Your task to perform on an android device: toggle priority inbox in the gmail app Image 0: 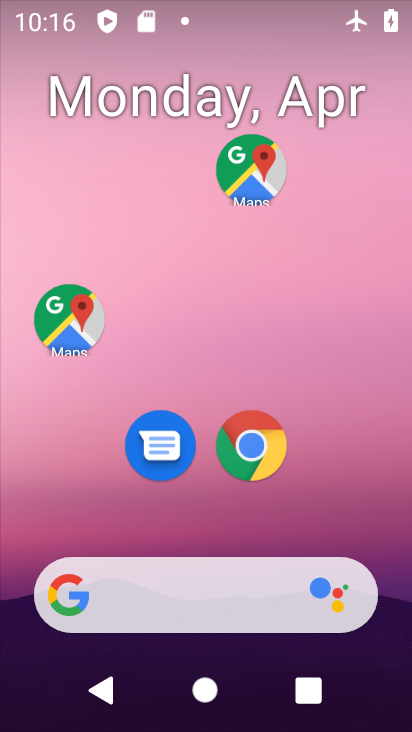
Step 0: drag from (200, 496) to (218, 37)
Your task to perform on an android device: toggle priority inbox in the gmail app Image 1: 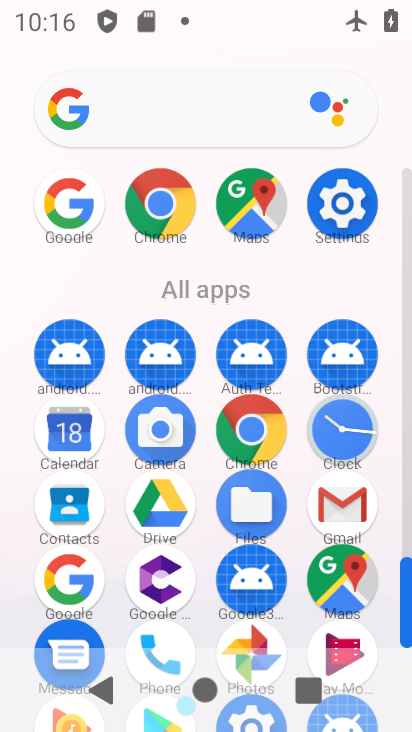
Step 1: click (340, 501)
Your task to perform on an android device: toggle priority inbox in the gmail app Image 2: 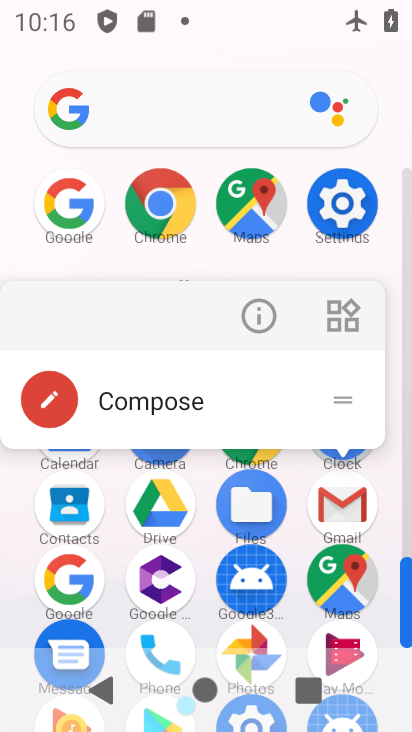
Step 2: click (343, 492)
Your task to perform on an android device: toggle priority inbox in the gmail app Image 3: 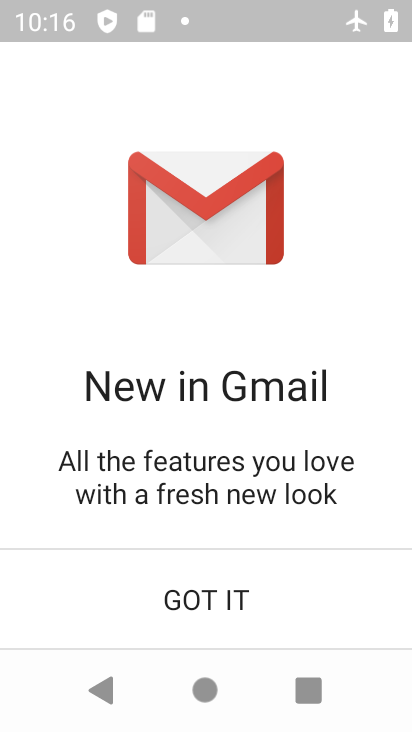
Step 3: click (259, 604)
Your task to perform on an android device: toggle priority inbox in the gmail app Image 4: 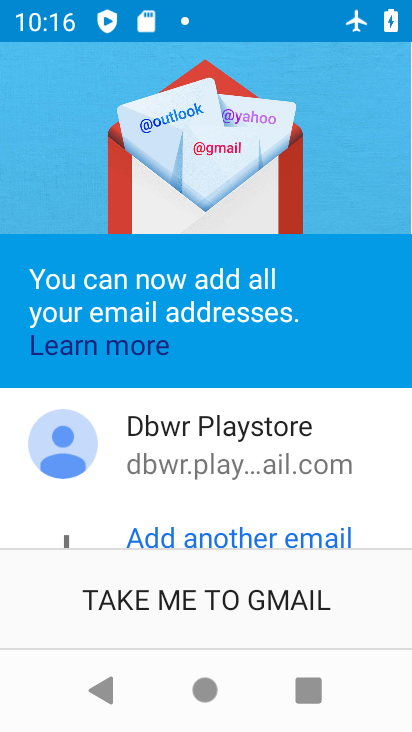
Step 4: click (286, 602)
Your task to perform on an android device: toggle priority inbox in the gmail app Image 5: 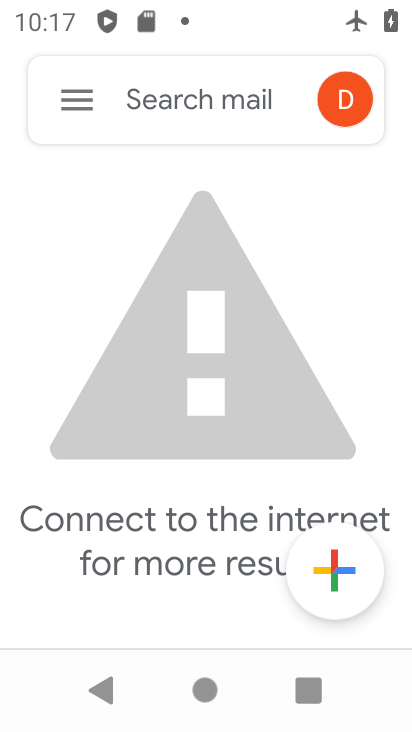
Step 5: drag from (198, 17) to (201, 651)
Your task to perform on an android device: toggle priority inbox in the gmail app Image 6: 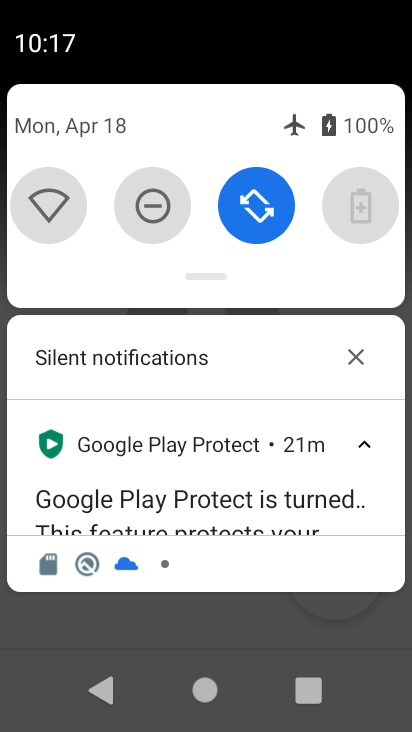
Step 6: drag from (171, 235) to (9, 219)
Your task to perform on an android device: toggle priority inbox in the gmail app Image 7: 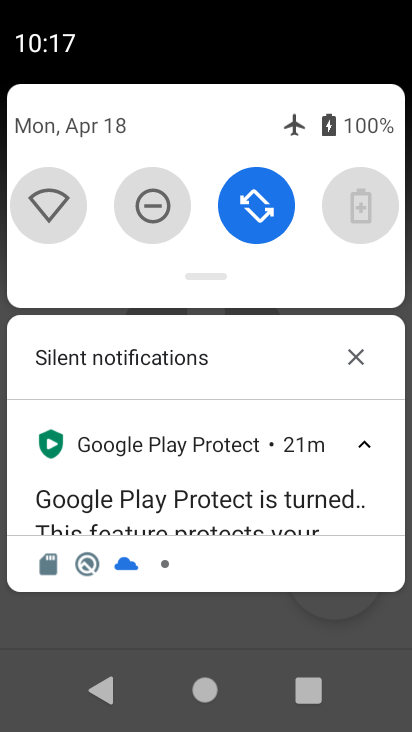
Step 7: drag from (276, 207) to (5, 176)
Your task to perform on an android device: toggle priority inbox in the gmail app Image 8: 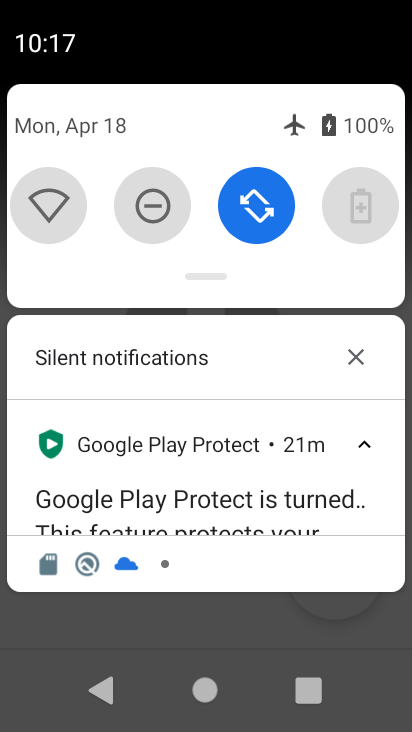
Step 8: drag from (187, 267) to (204, 620)
Your task to perform on an android device: toggle priority inbox in the gmail app Image 9: 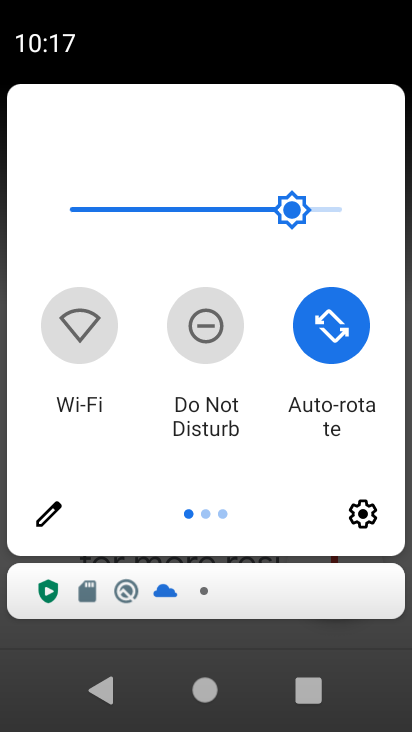
Step 9: drag from (154, 368) to (8, 354)
Your task to perform on an android device: toggle priority inbox in the gmail app Image 10: 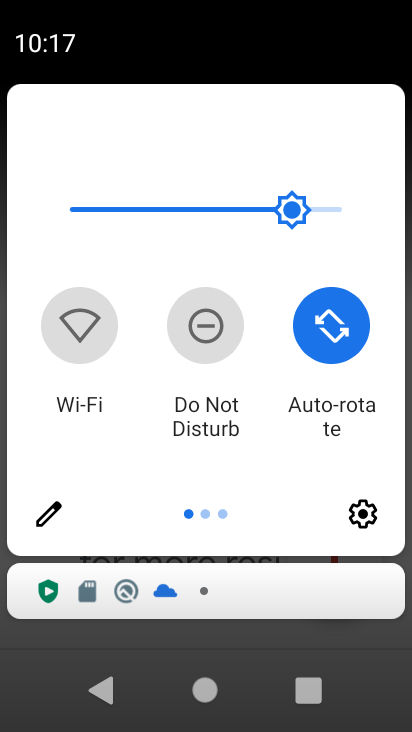
Step 10: drag from (275, 358) to (6, 364)
Your task to perform on an android device: toggle priority inbox in the gmail app Image 11: 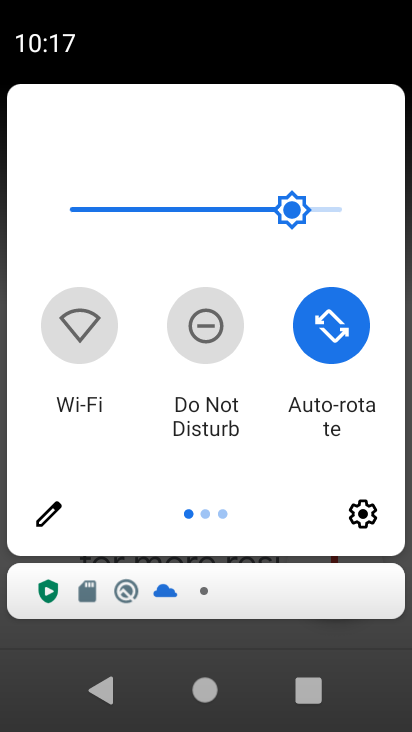
Step 11: drag from (212, 386) to (11, 357)
Your task to perform on an android device: toggle priority inbox in the gmail app Image 12: 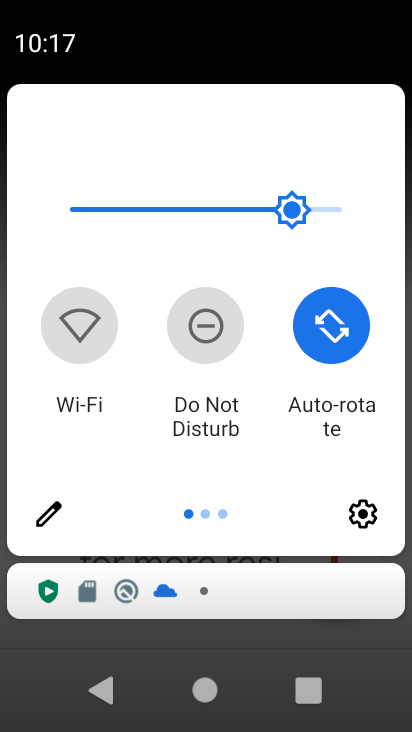
Step 12: drag from (290, 395) to (3, 364)
Your task to perform on an android device: toggle priority inbox in the gmail app Image 13: 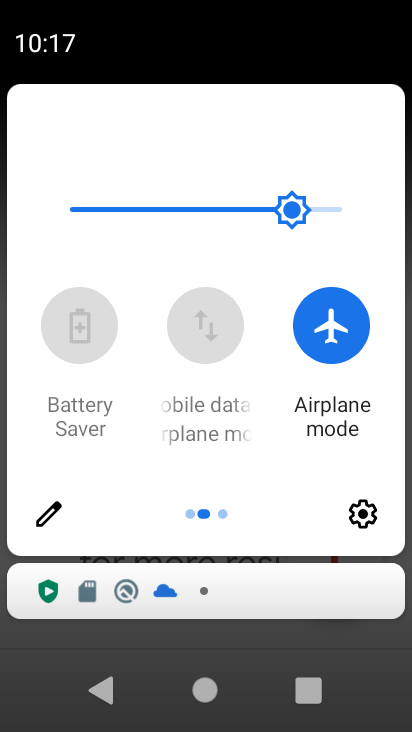
Step 13: drag from (300, 334) to (4, 296)
Your task to perform on an android device: toggle priority inbox in the gmail app Image 14: 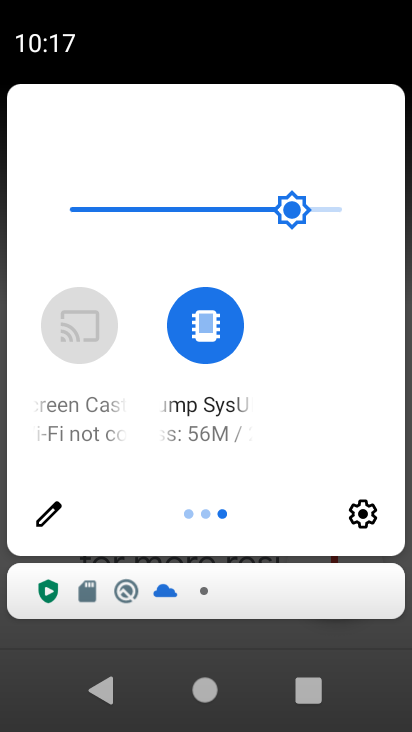
Step 14: click (60, 327)
Your task to perform on an android device: toggle priority inbox in the gmail app Image 15: 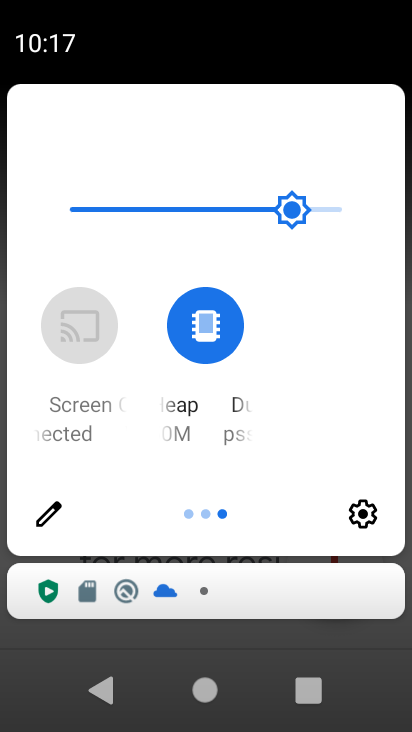
Step 15: drag from (35, 350) to (410, 335)
Your task to perform on an android device: toggle priority inbox in the gmail app Image 16: 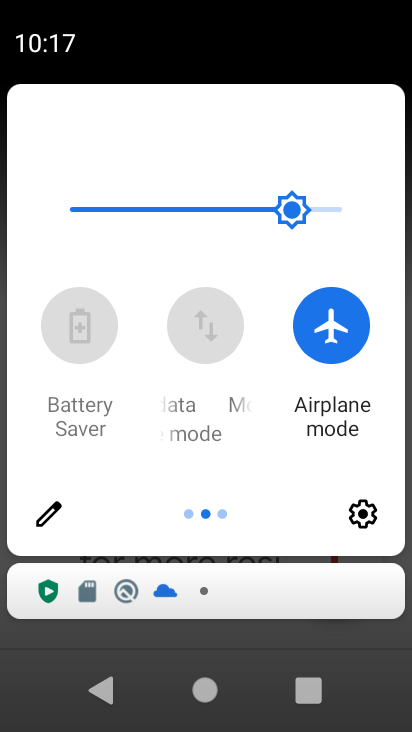
Step 16: click (323, 317)
Your task to perform on an android device: toggle priority inbox in the gmail app Image 17: 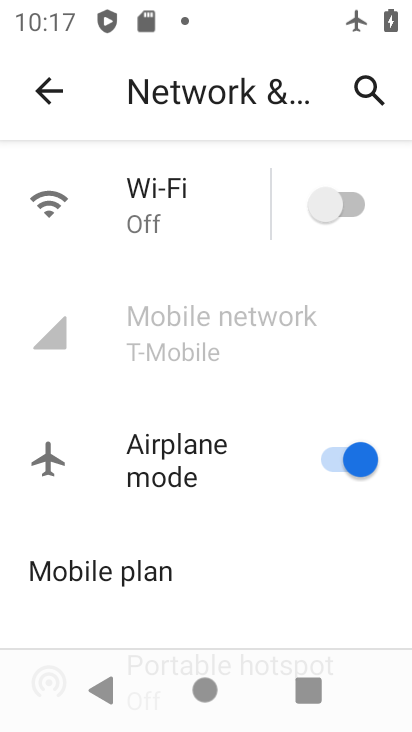
Step 17: click (331, 461)
Your task to perform on an android device: toggle priority inbox in the gmail app Image 18: 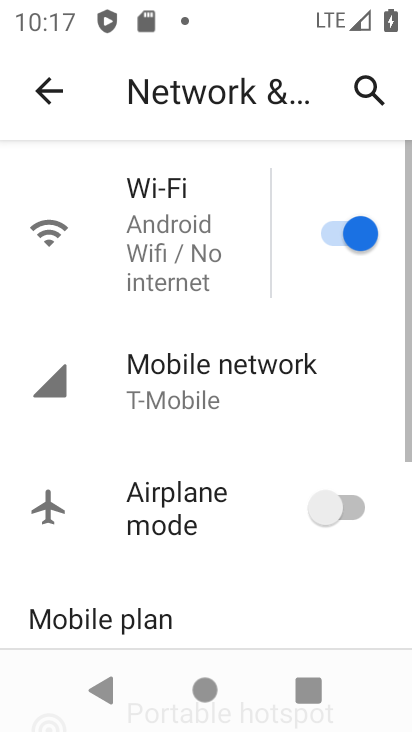
Step 18: click (115, 682)
Your task to perform on an android device: toggle priority inbox in the gmail app Image 19: 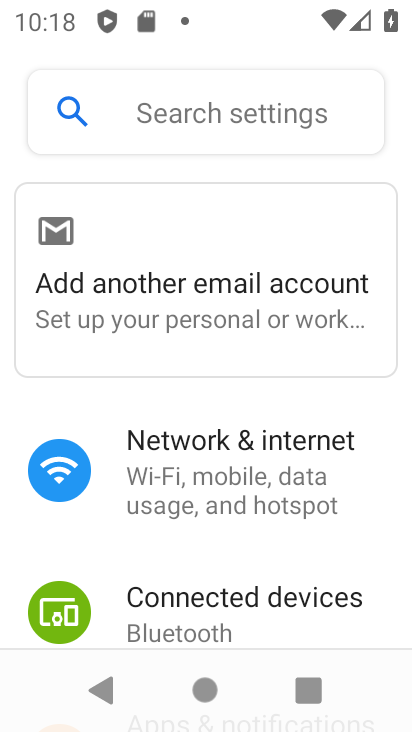
Step 19: press home button
Your task to perform on an android device: toggle priority inbox in the gmail app Image 20: 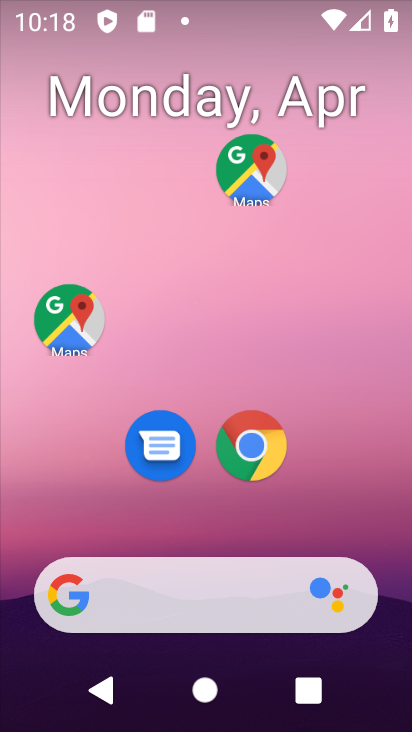
Step 20: drag from (180, 525) to (129, 9)
Your task to perform on an android device: toggle priority inbox in the gmail app Image 21: 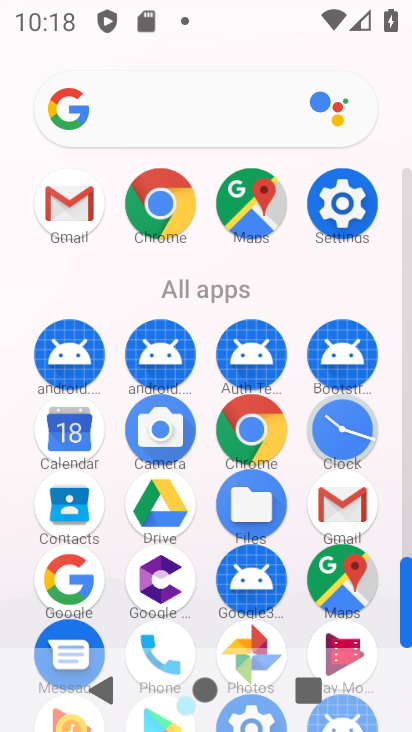
Step 21: click (65, 209)
Your task to perform on an android device: toggle priority inbox in the gmail app Image 22: 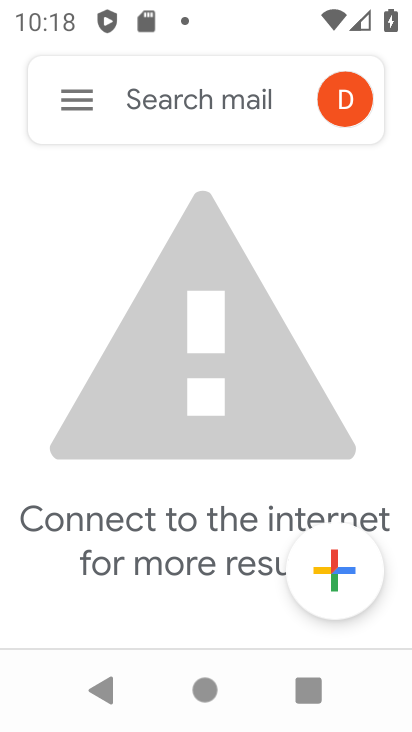
Step 22: click (73, 116)
Your task to perform on an android device: toggle priority inbox in the gmail app Image 23: 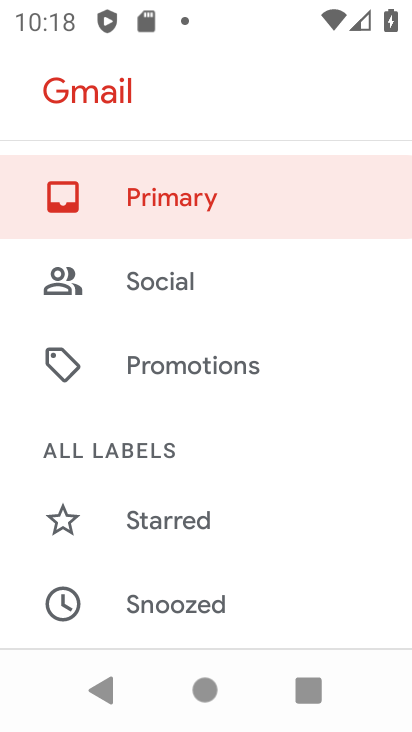
Step 23: drag from (161, 548) to (158, 134)
Your task to perform on an android device: toggle priority inbox in the gmail app Image 24: 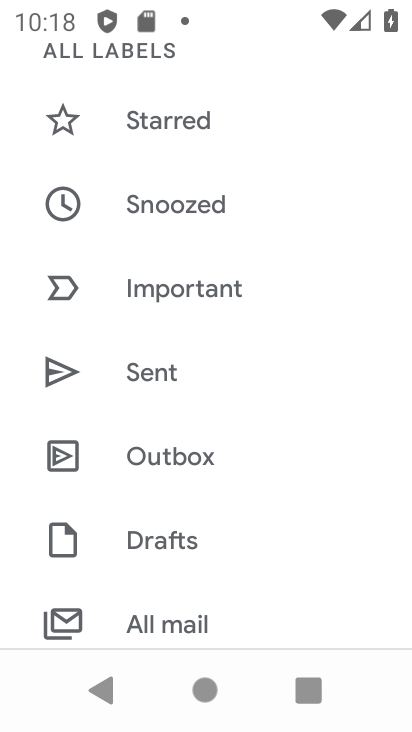
Step 24: drag from (156, 586) to (161, 88)
Your task to perform on an android device: toggle priority inbox in the gmail app Image 25: 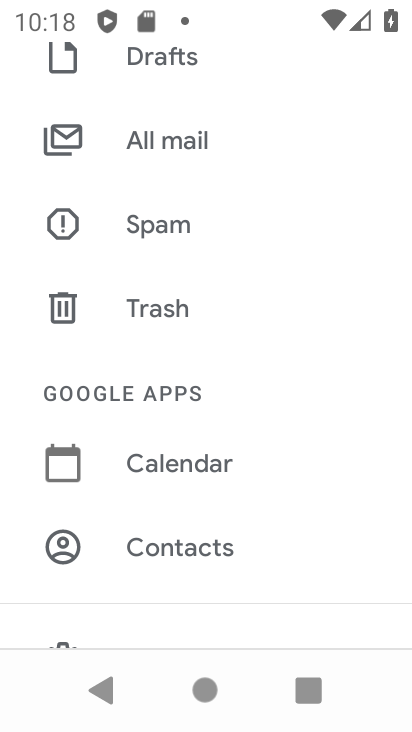
Step 25: drag from (202, 580) to (122, 197)
Your task to perform on an android device: toggle priority inbox in the gmail app Image 26: 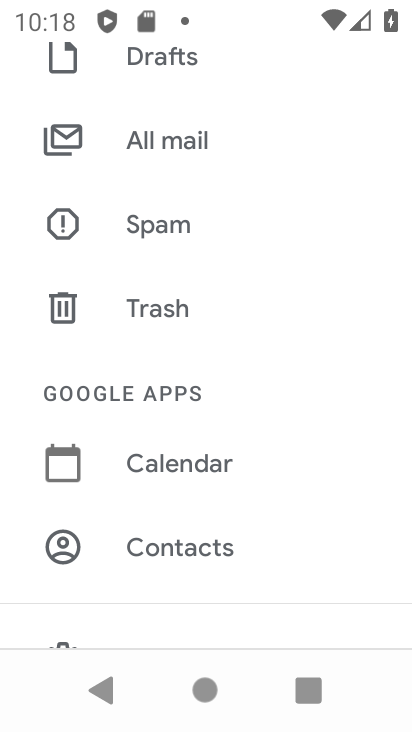
Step 26: drag from (167, 553) to (127, 233)
Your task to perform on an android device: toggle priority inbox in the gmail app Image 27: 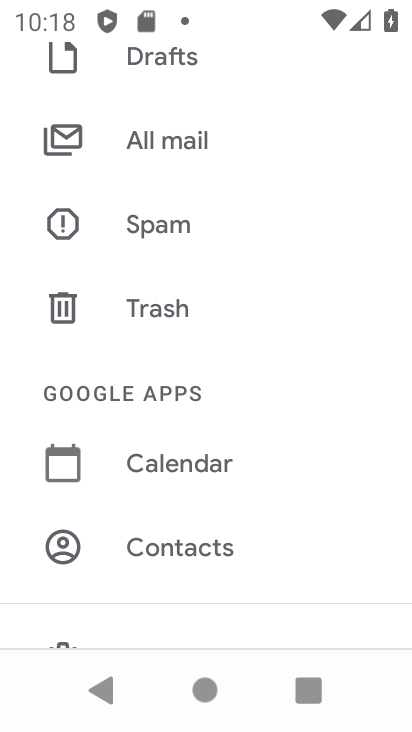
Step 27: drag from (219, 491) to (191, 96)
Your task to perform on an android device: toggle priority inbox in the gmail app Image 28: 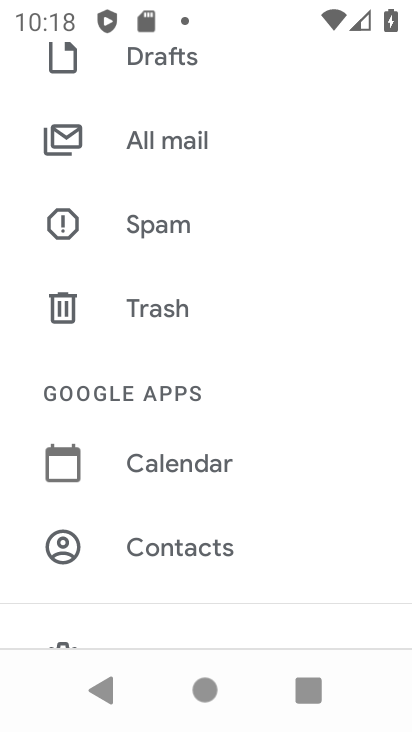
Step 28: drag from (170, 599) to (156, 76)
Your task to perform on an android device: toggle priority inbox in the gmail app Image 29: 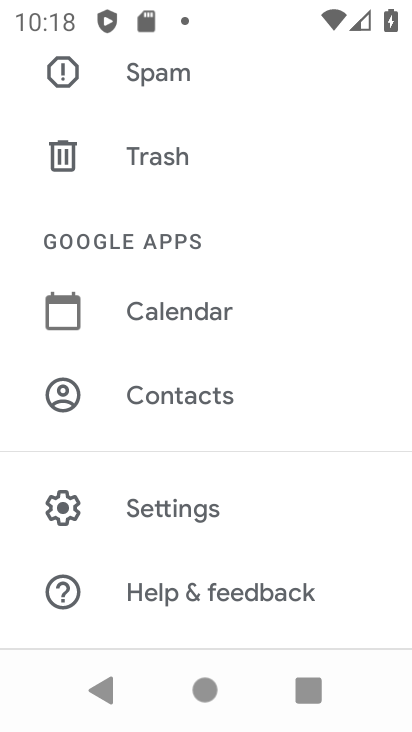
Step 29: click (212, 525)
Your task to perform on an android device: toggle priority inbox in the gmail app Image 30: 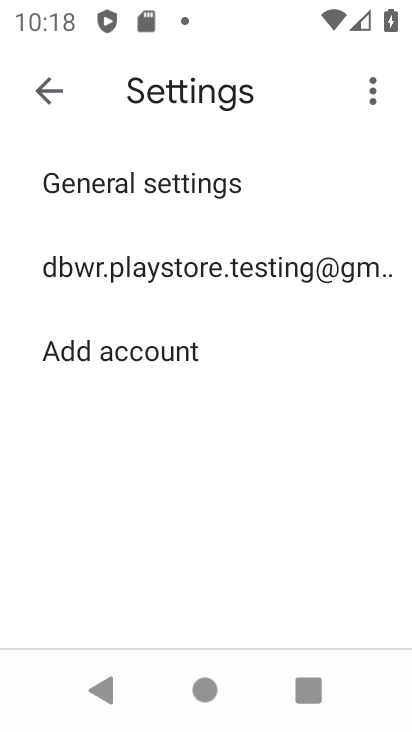
Step 30: click (186, 269)
Your task to perform on an android device: toggle priority inbox in the gmail app Image 31: 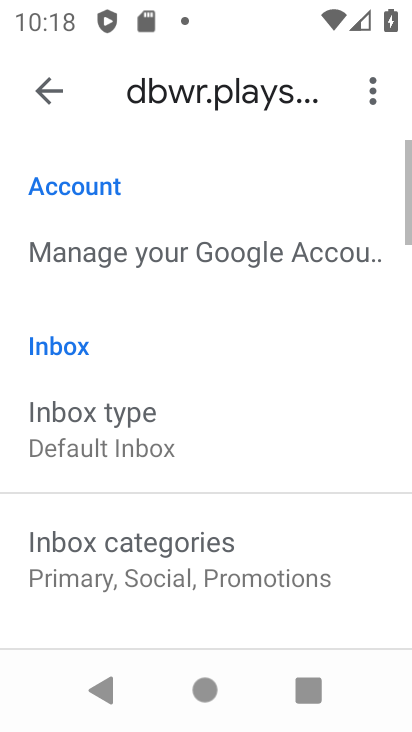
Step 31: click (137, 441)
Your task to perform on an android device: toggle priority inbox in the gmail app Image 32: 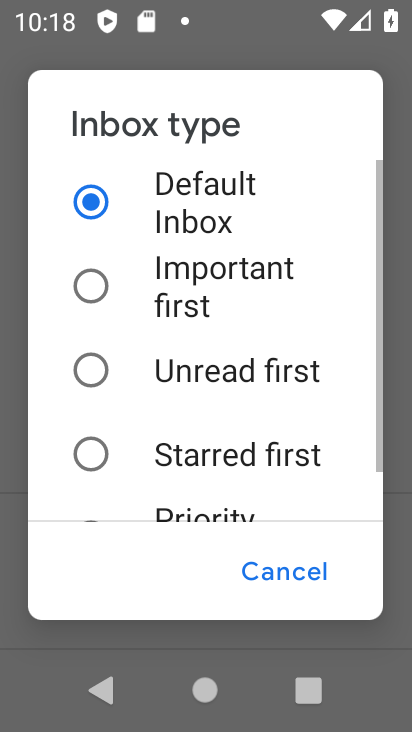
Step 32: drag from (122, 438) to (127, 147)
Your task to perform on an android device: toggle priority inbox in the gmail app Image 33: 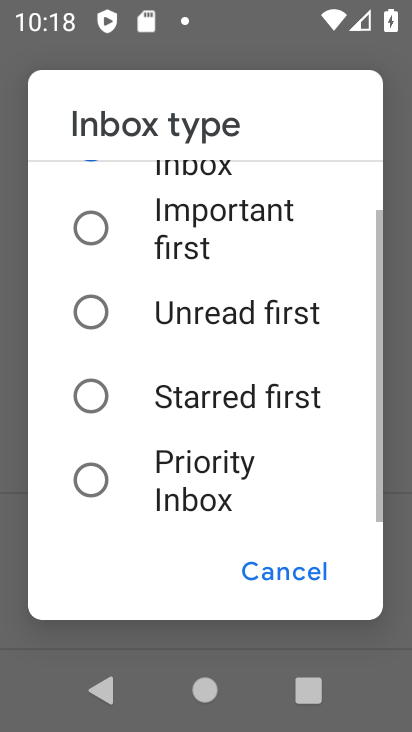
Step 33: click (92, 483)
Your task to perform on an android device: toggle priority inbox in the gmail app Image 34: 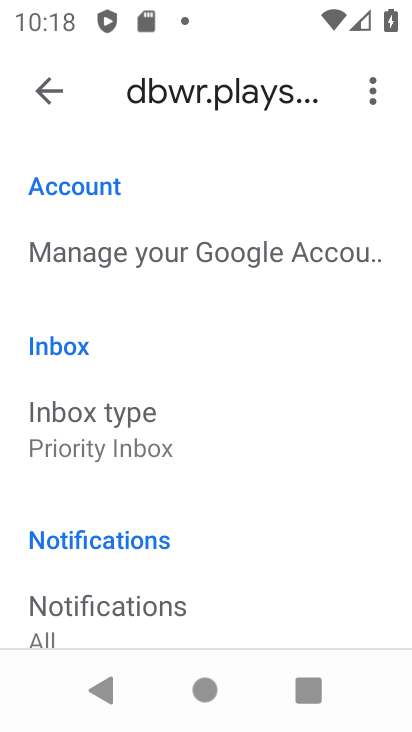
Step 34: task complete